Your task to perform on an android device: toggle priority inbox in the gmail app Image 0: 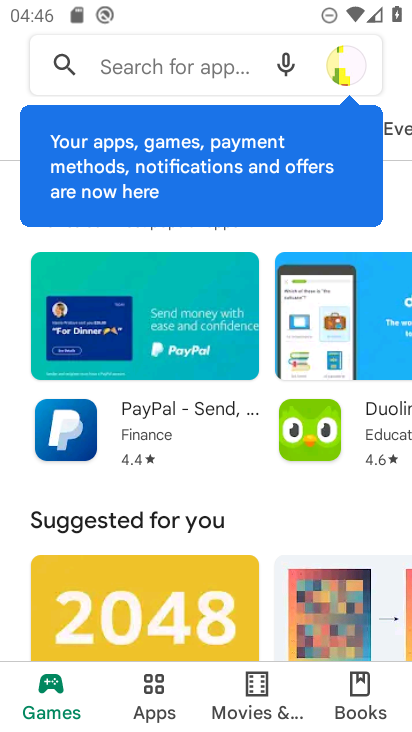
Step 0: press home button
Your task to perform on an android device: toggle priority inbox in the gmail app Image 1: 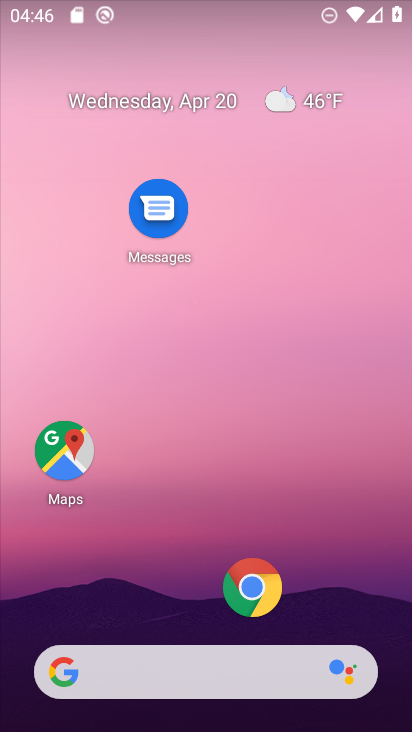
Step 1: click (224, 122)
Your task to perform on an android device: toggle priority inbox in the gmail app Image 2: 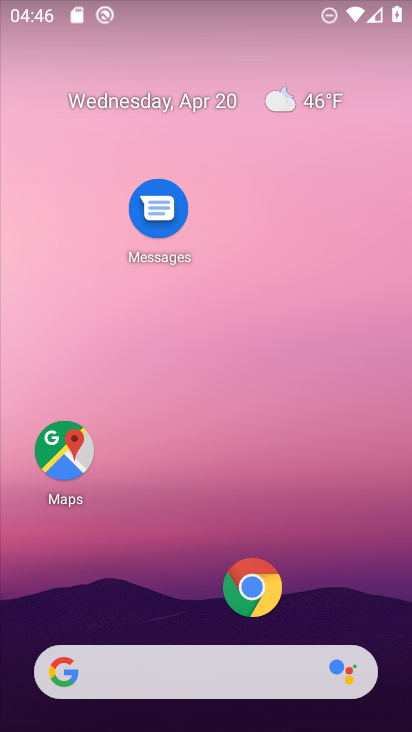
Step 2: drag from (195, 615) to (204, 181)
Your task to perform on an android device: toggle priority inbox in the gmail app Image 3: 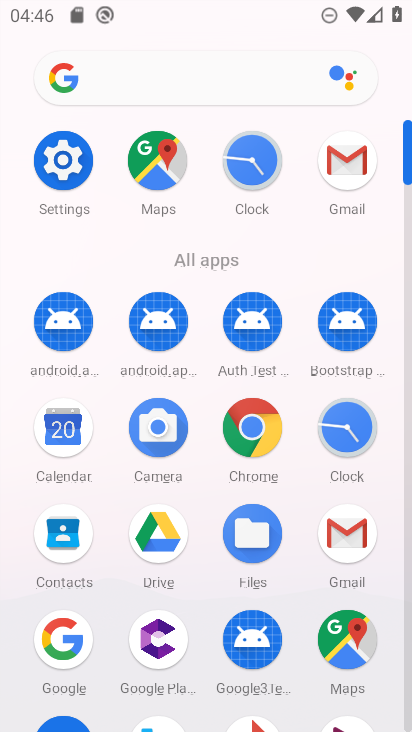
Step 3: click (347, 181)
Your task to perform on an android device: toggle priority inbox in the gmail app Image 4: 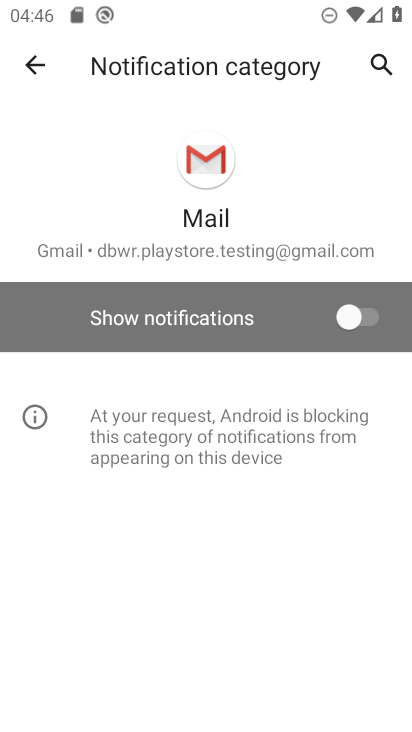
Step 4: click (33, 65)
Your task to perform on an android device: toggle priority inbox in the gmail app Image 5: 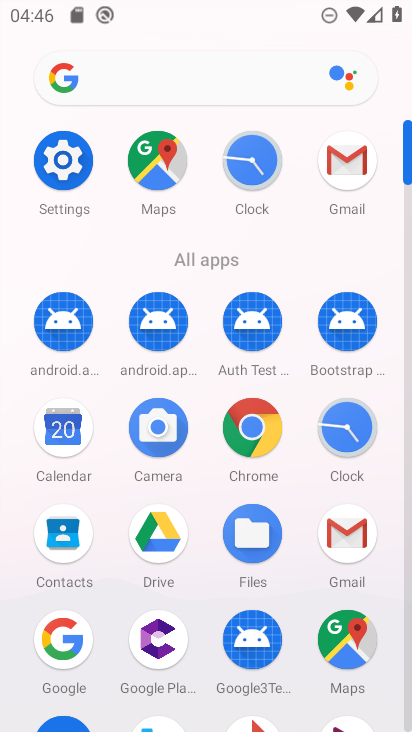
Step 5: click (336, 528)
Your task to perform on an android device: toggle priority inbox in the gmail app Image 6: 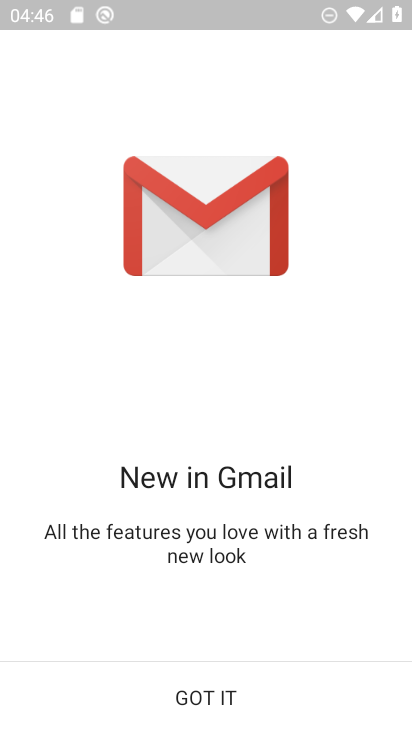
Step 6: click (188, 699)
Your task to perform on an android device: toggle priority inbox in the gmail app Image 7: 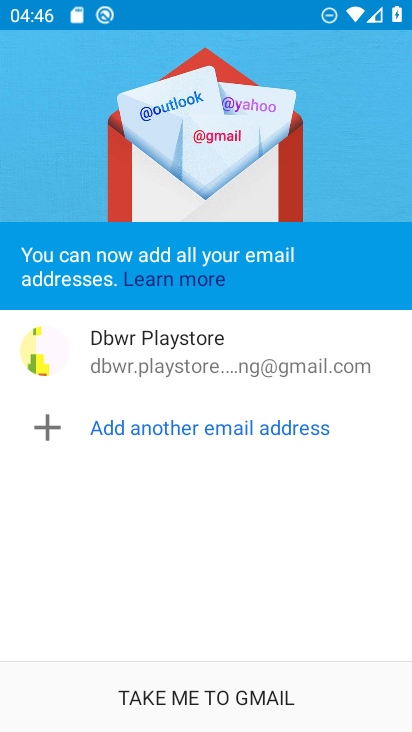
Step 7: click (193, 697)
Your task to perform on an android device: toggle priority inbox in the gmail app Image 8: 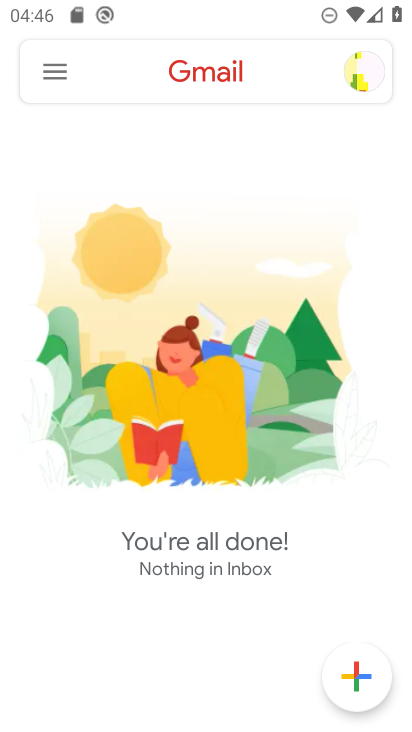
Step 8: click (49, 73)
Your task to perform on an android device: toggle priority inbox in the gmail app Image 9: 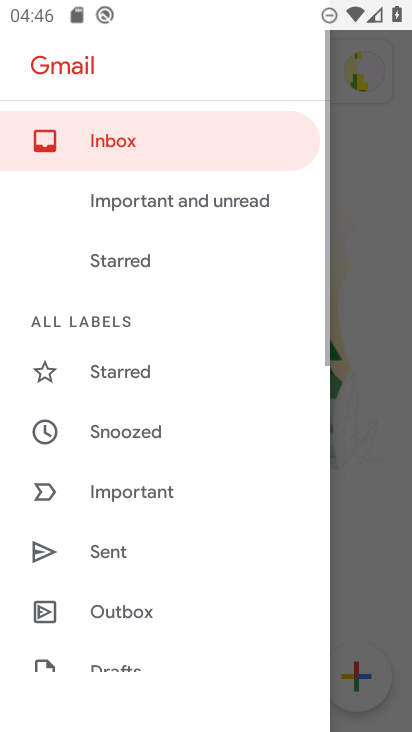
Step 9: drag from (177, 650) to (184, 433)
Your task to perform on an android device: toggle priority inbox in the gmail app Image 10: 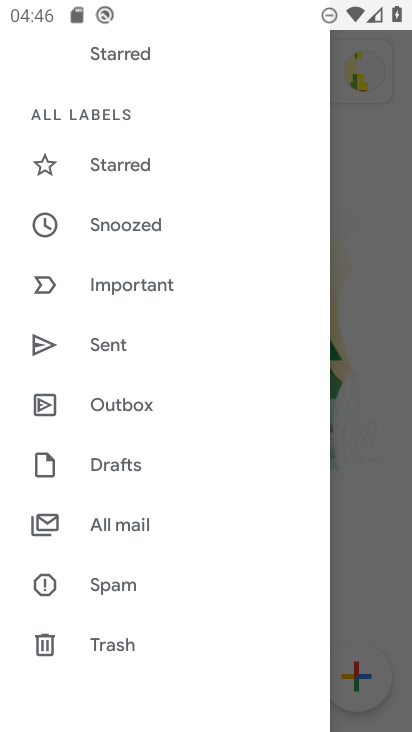
Step 10: drag from (157, 570) to (183, 318)
Your task to perform on an android device: toggle priority inbox in the gmail app Image 11: 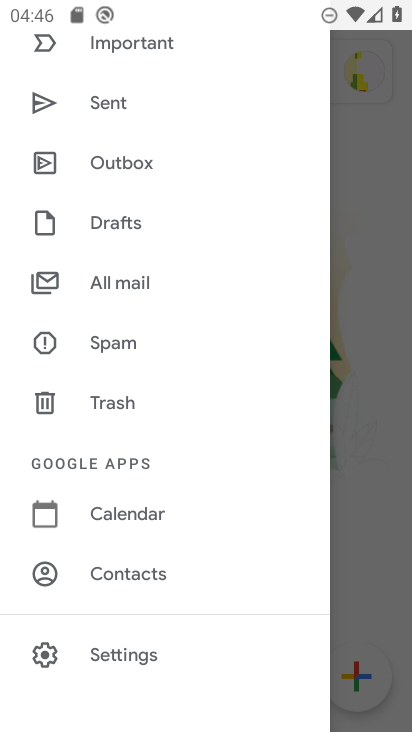
Step 11: click (134, 644)
Your task to perform on an android device: toggle priority inbox in the gmail app Image 12: 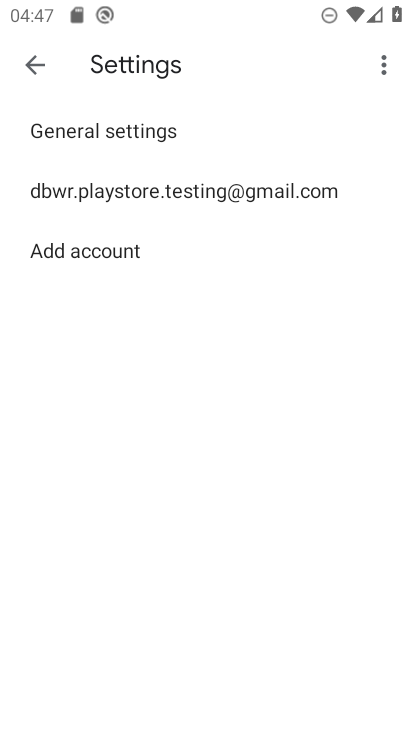
Step 12: click (151, 202)
Your task to perform on an android device: toggle priority inbox in the gmail app Image 13: 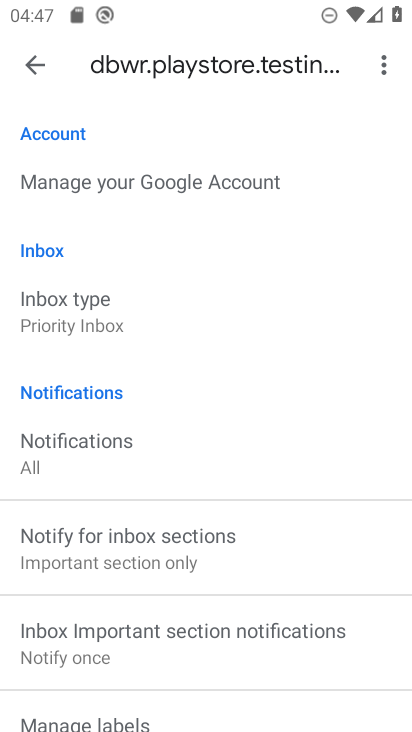
Step 13: click (117, 320)
Your task to perform on an android device: toggle priority inbox in the gmail app Image 14: 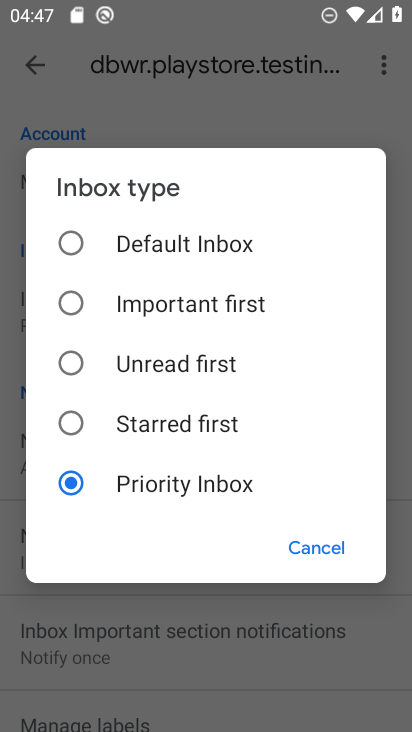
Step 14: click (138, 232)
Your task to perform on an android device: toggle priority inbox in the gmail app Image 15: 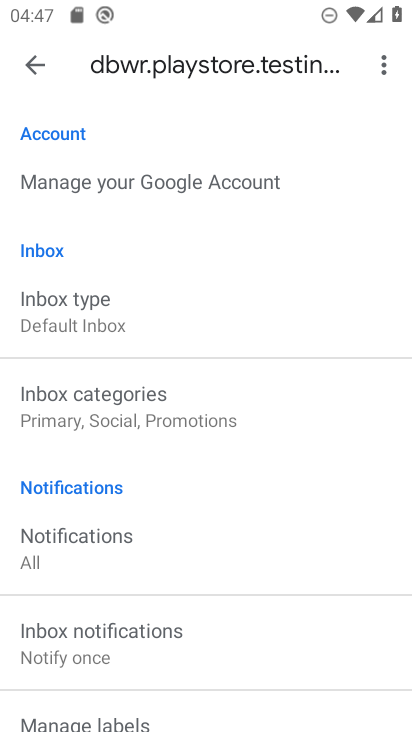
Step 15: click (106, 248)
Your task to perform on an android device: toggle priority inbox in the gmail app Image 16: 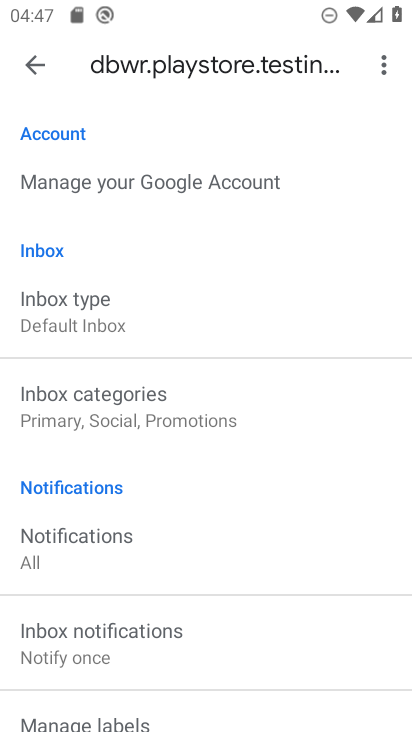
Step 16: task complete